Your task to perform on an android device: move an email to a new category in the gmail app Image 0: 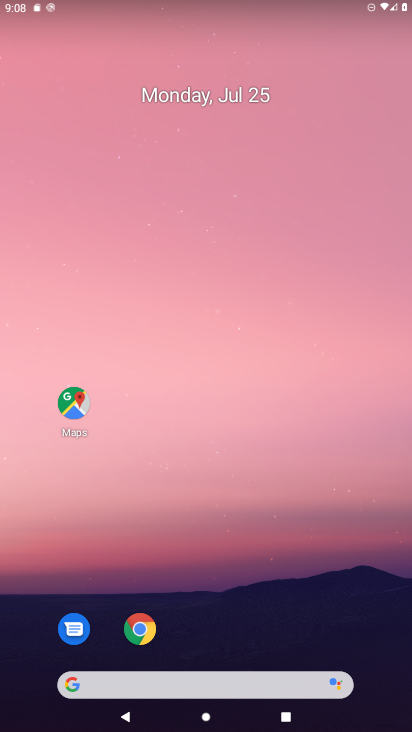
Step 0: drag from (289, 625) to (215, 20)
Your task to perform on an android device: move an email to a new category in the gmail app Image 1: 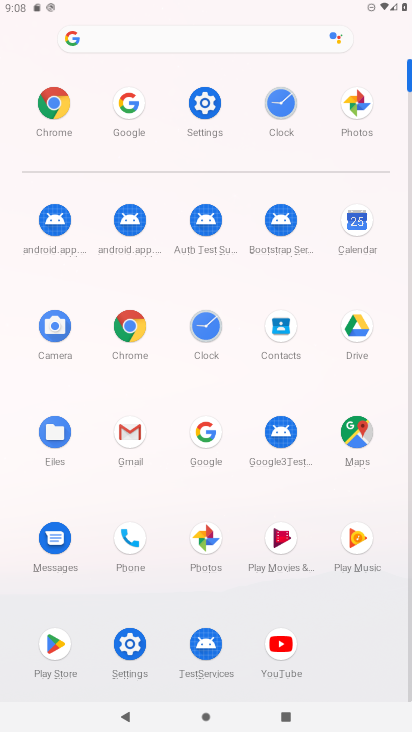
Step 1: click (124, 448)
Your task to perform on an android device: move an email to a new category in the gmail app Image 2: 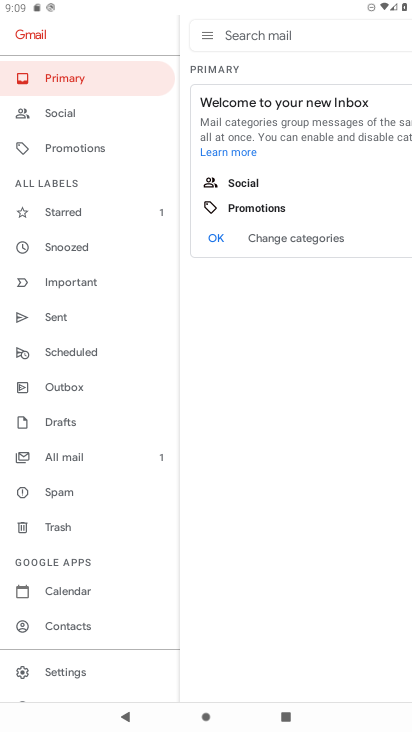
Step 2: click (204, 32)
Your task to perform on an android device: move an email to a new category in the gmail app Image 3: 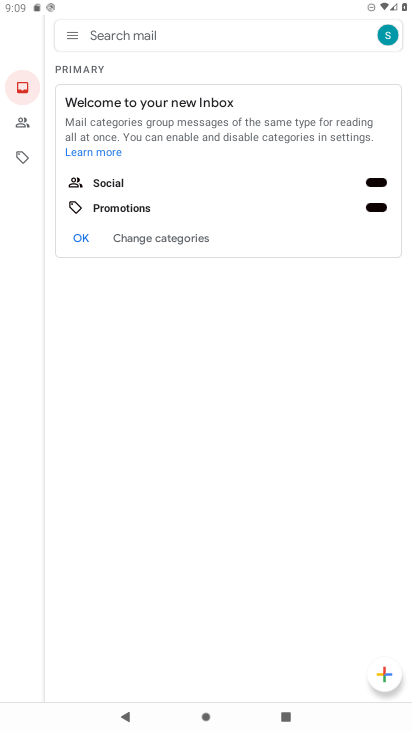
Step 3: click (76, 37)
Your task to perform on an android device: move an email to a new category in the gmail app Image 4: 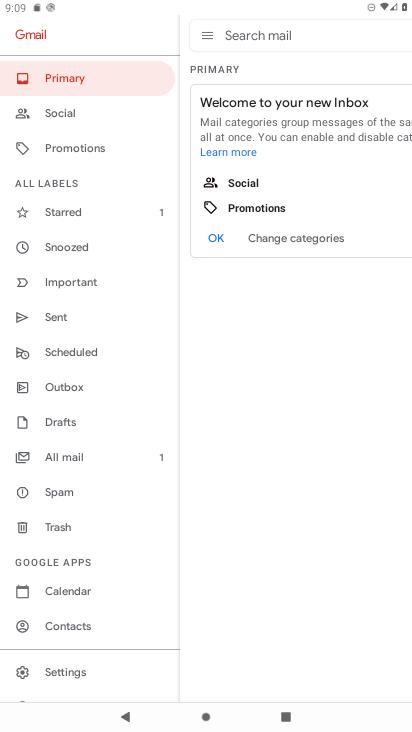
Step 4: click (61, 454)
Your task to perform on an android device: move an email to a new category in the gmail app Image 5: 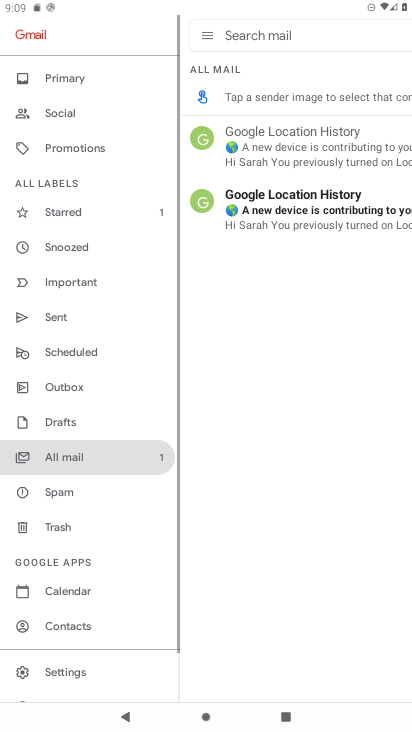
Step 5: click (204, 35)
Your task to perform on an android device: move an email to a new category in the gmail app Image 6: 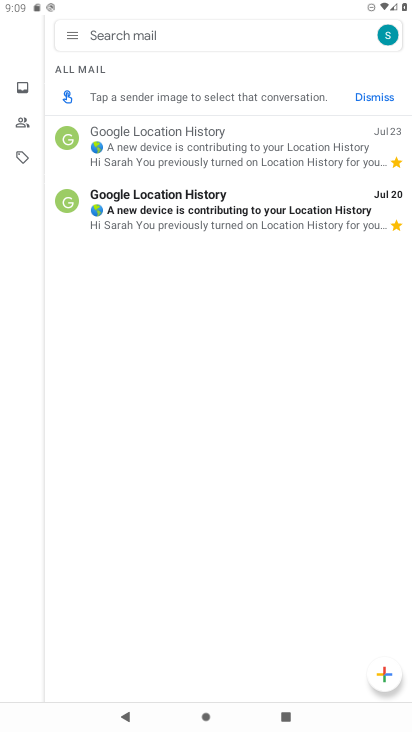
Step 6: click (280, 152)
Your task to perform on an android device: move an email to a new category in the gmail app Image 7: 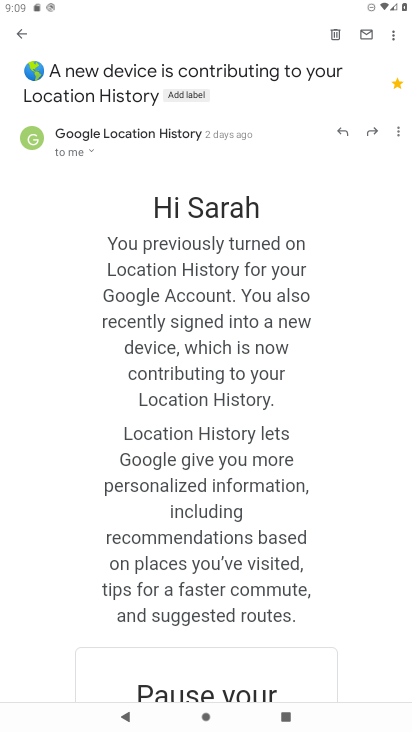
Step 7: click (391, 30)
Your task to perform on an android device: move an email to a new category in the gmail app Image 8: 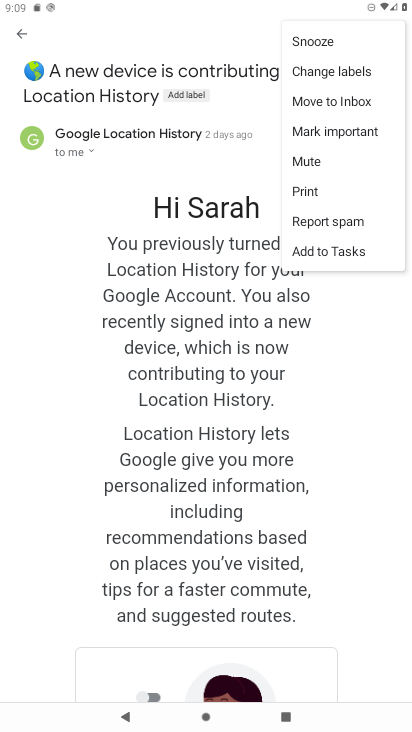
Step 8: click (336, 135)
Your task to perform on an android device: move an email to a new category in the gmail app Image 9: 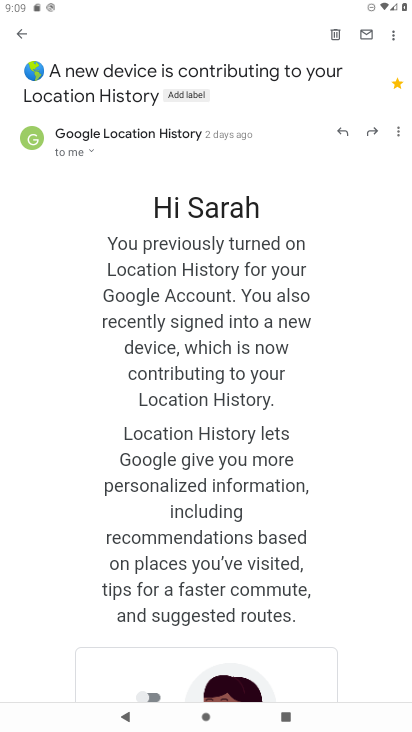
Step 9: task complete